Your task to perform on an android device: turn on improve location accuracy Image 0: 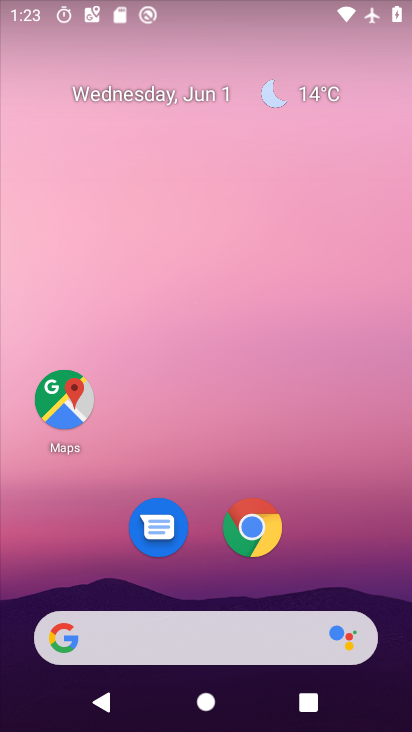
Step 0: drag from (331, 583) to (336, 10)
Your task to perform on an android device: turn on improve location accuracy Image 1: 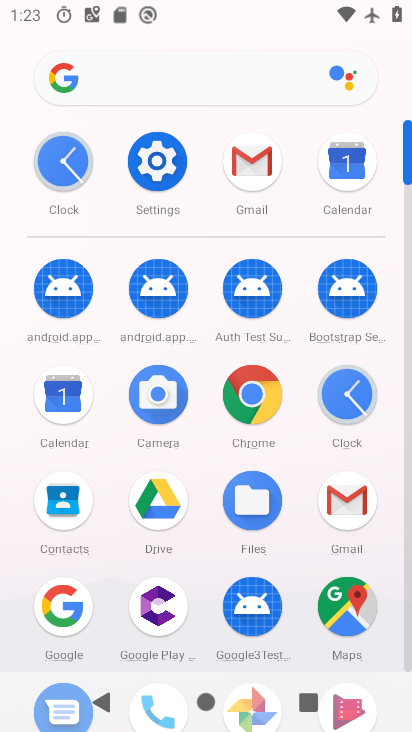
Step 1: click (156, 159)
Your task to perform on an android device: turn on improve location accuracy Image 2: 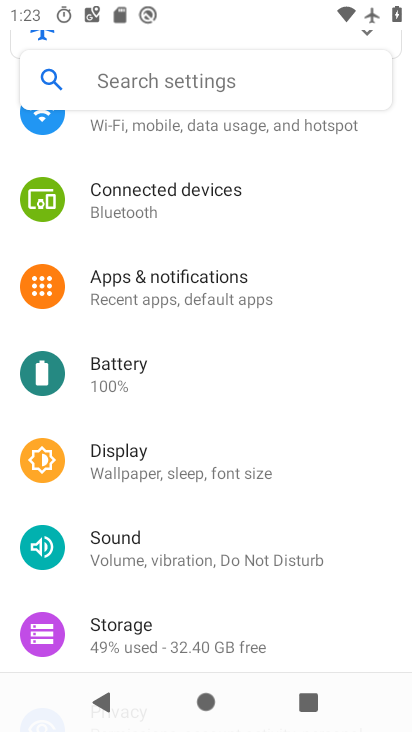
Step 2: drag from (382, 489) to (356, 201)
Your task to perform on an android device: turn on improve location accuracy Image 3: 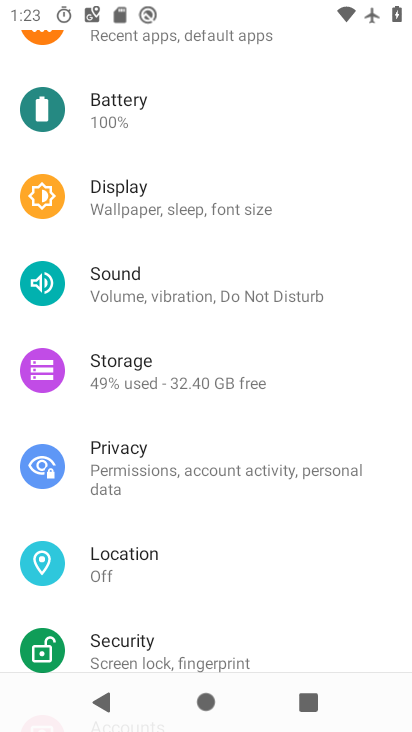
Step 3: click (90, 562)
Your task to perform on an android device: turn on improve location accuracy Image 4: 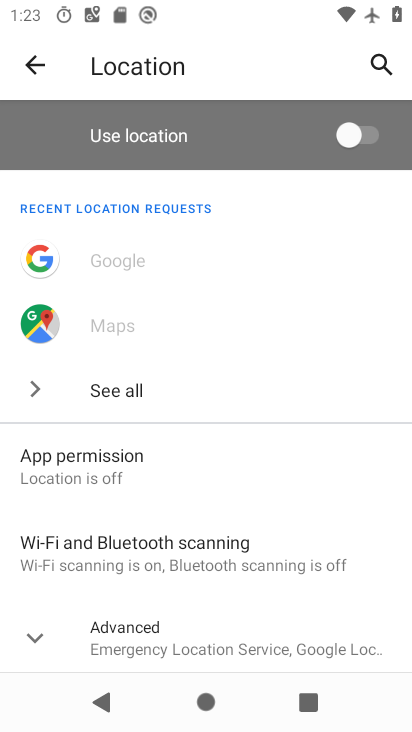
Step 4: drag from (175, 456) to (157, 202)
Your task to perform on an android device: turn on improve location accuracy Image 5: 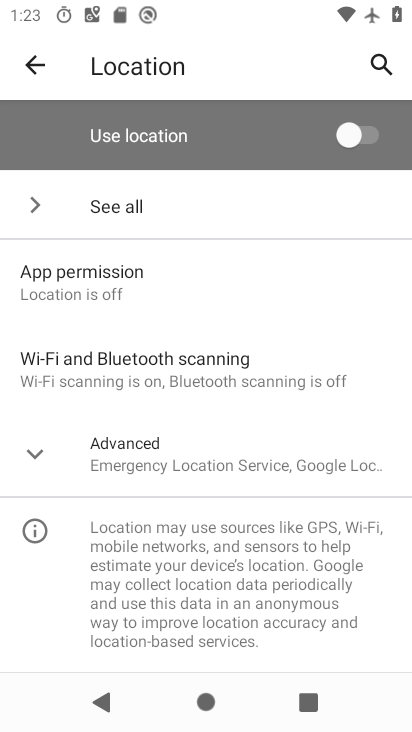
Step 5: click (37, 460)
Your task to perform on an android device: turn on improve location accuracy Image 6: 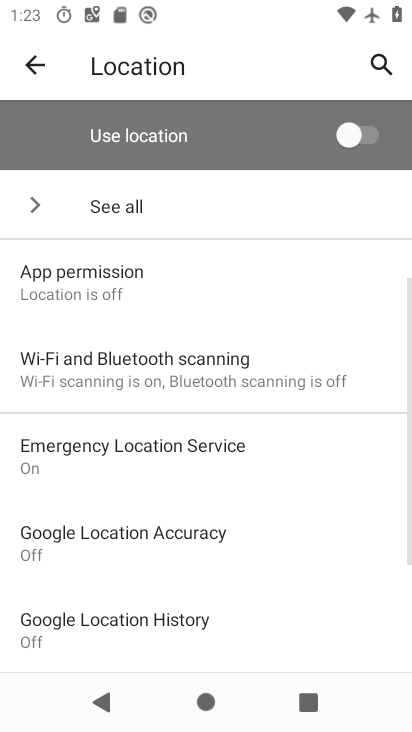
Step 6: drag from (162, 477) to (144, 270)
Your task to perform on an android device: turn on improve location accuracy Image 7: 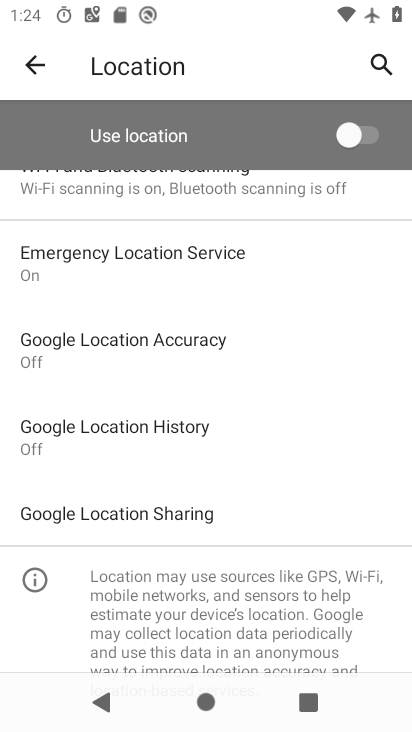
Step 7: click (108, 346)
Your task to perform on an android device: turn on improve location accuracy Image 8: 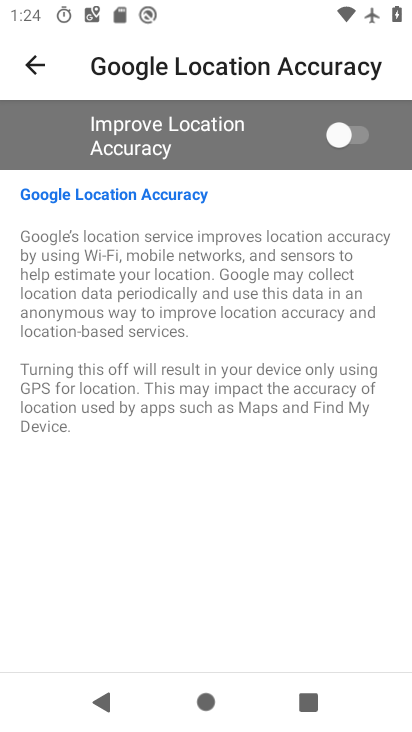
Step 8: click (320, 137)
Your task to perform on an android device: turn on improve location accuracy Image 9: 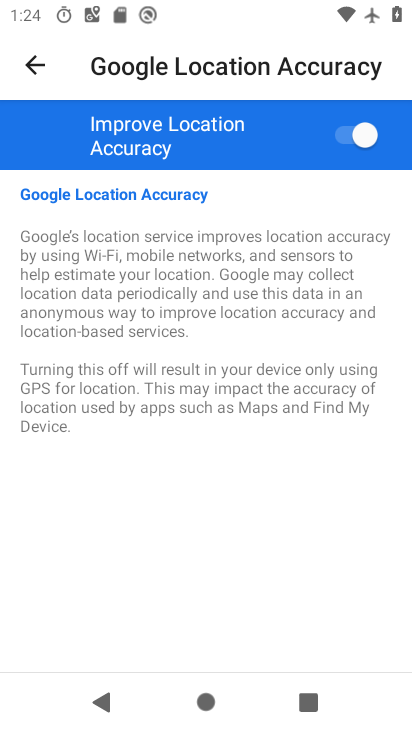
Step 9: task complete